Your task to perform on an android device: set the stopwatch Image 0: 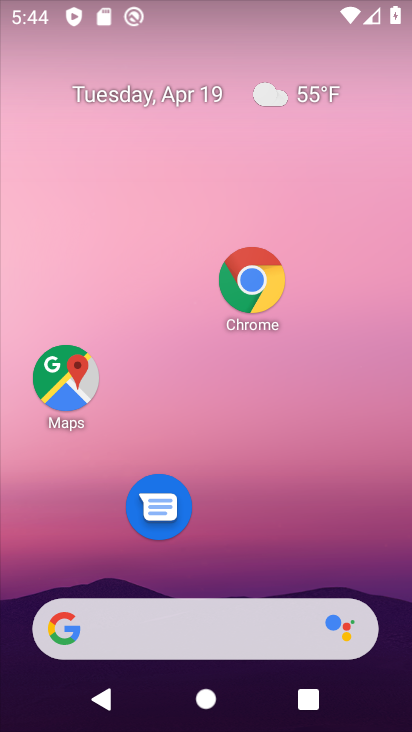
Step 0: drag from (195, 552) to (213, 188)
Your task to perform on an android device: set the stopwatch Image 1: 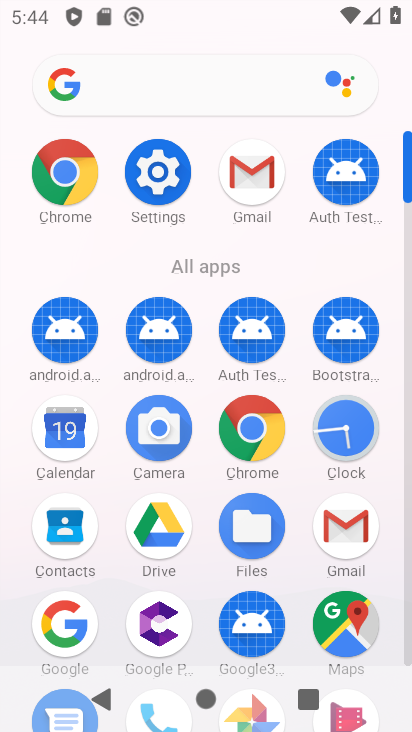
Step 1: click (338, 434)
Your task to perform on an android device: set the stopwatch Image 2: 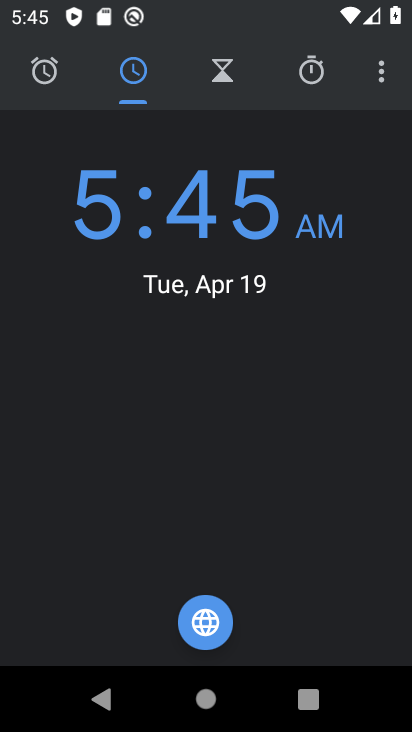
Step 2: click (305, 74)
Your task to perform on an android device: set the stopwatch Image 3: 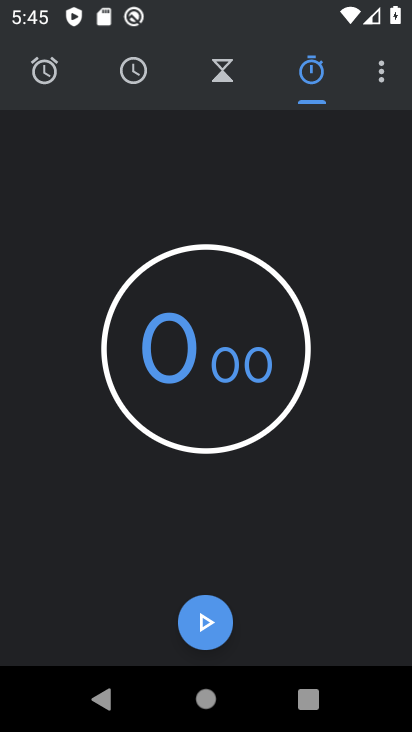
Step 3: click (212, 616)
Your task to perform on an android device: set the stopwatch Image 4: 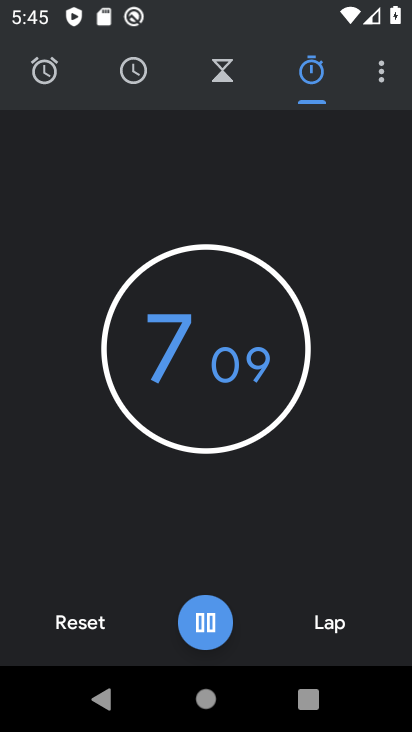
Step 4: click (209, 630)
Your task to perform on an android device: set the stopwatch Image 5: 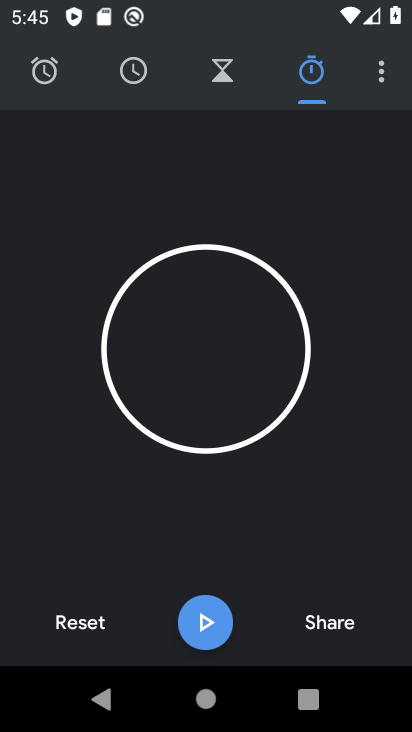
Step 5: click (88, 624)
Your task to perform on an android device: set the stopwatch Image 6: 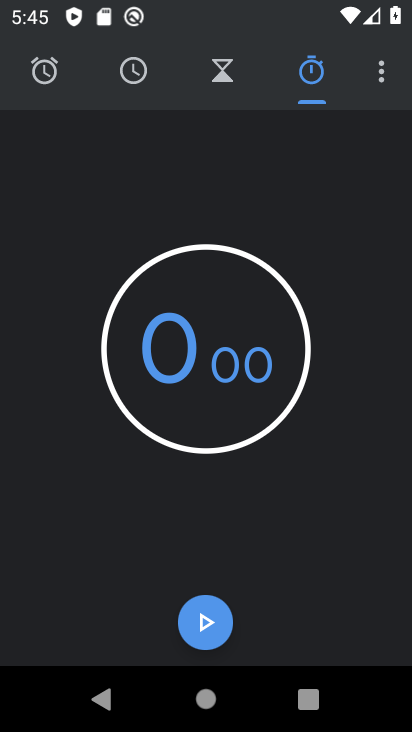
Step 6: click (200, 622)
Your task to perform on an android device: set the stopwatch Image 7: 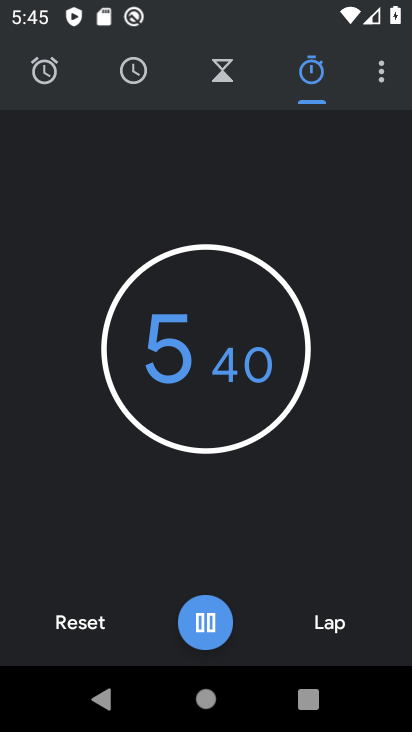
Step 7: click (201, 624)
Your task to perform on an android device: set the stopwatch Image 8: 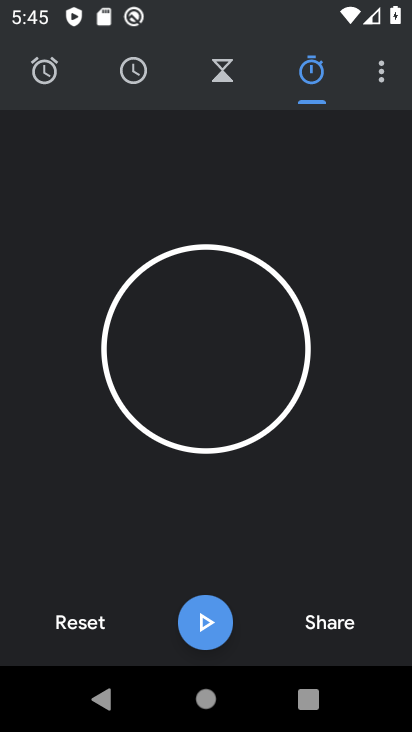
Step 8: task complete